Your task to perform on an android device: Open Google Chrome Image 0: 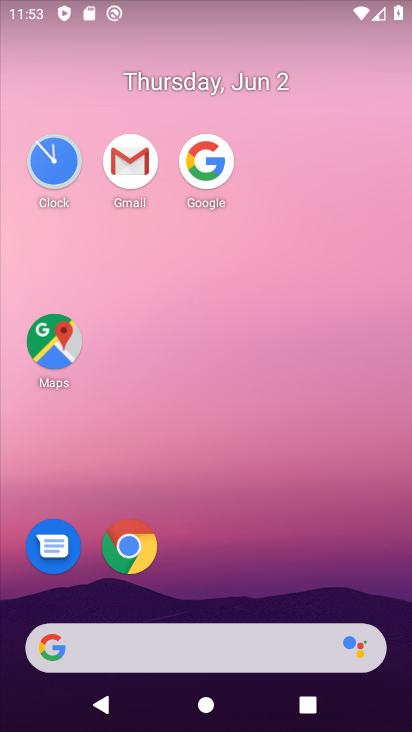
Step 0: click (147, 562)
Your task to perform on an android device: Open Google Chrome Image 1: 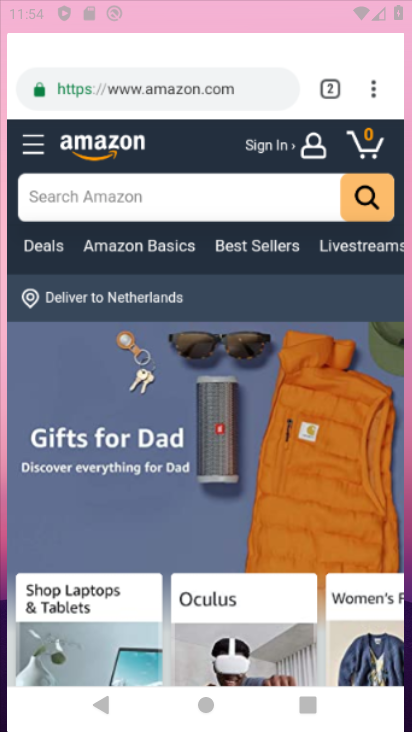
Step 1: click (122, 565)
Your task to perform on an android device: Open Google Chrome Image 2: 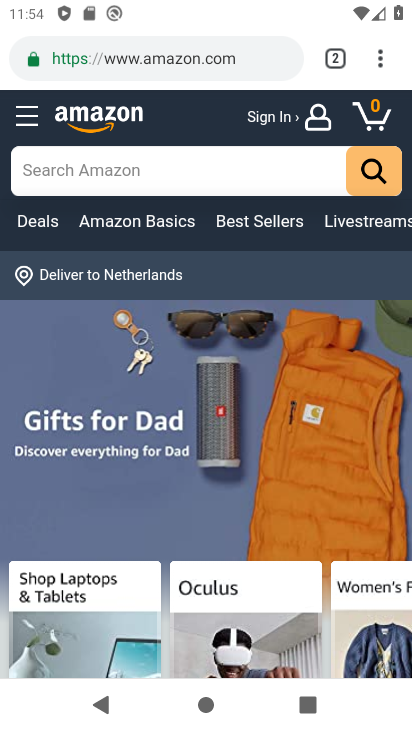
Step 2: task complete